Your task to perform on an android device: change the clock display to digital Image 0: 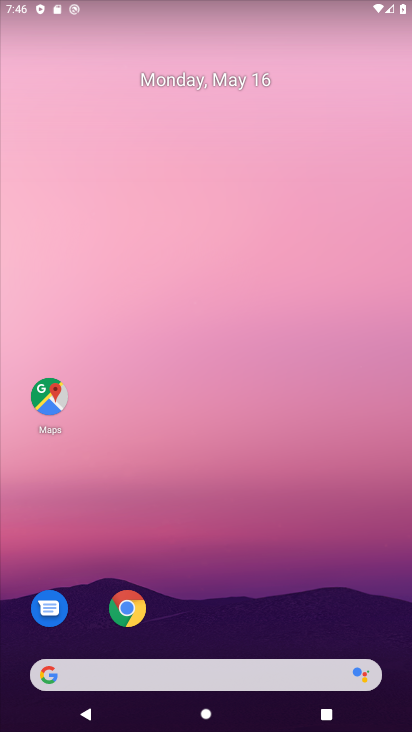
Step 0: drag from (248, 596) to (182, 90)
Your task to perform on an android device: change the clock display to digital Image 1: 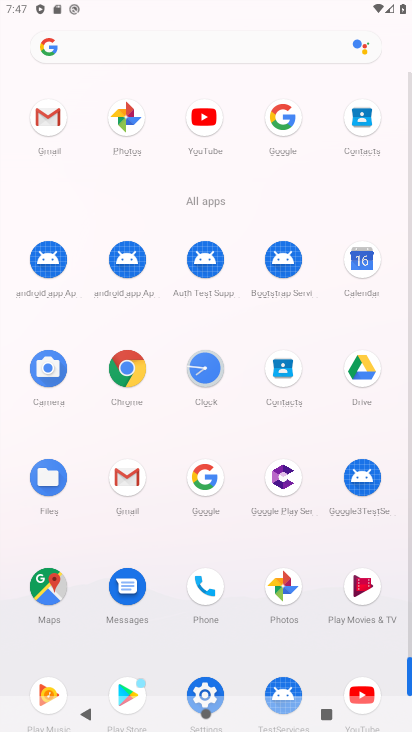
Step 1: click (203, 369)
Your task to perform on an android device: change the clock display to digital Image 2: 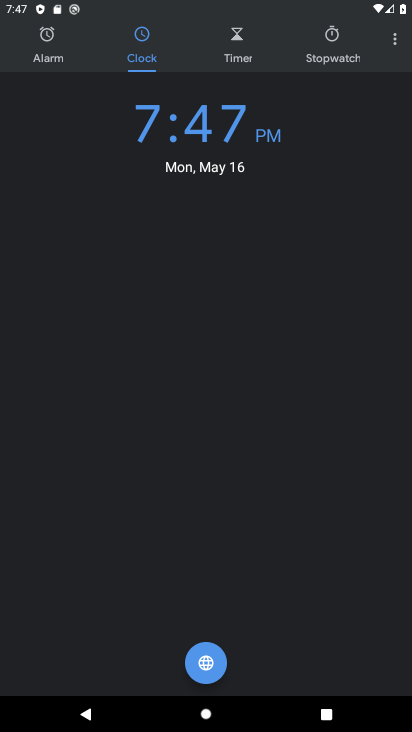
Step 2: click (398, 41)
Your task to perform on an android device: change the clock display to digital Image 3: 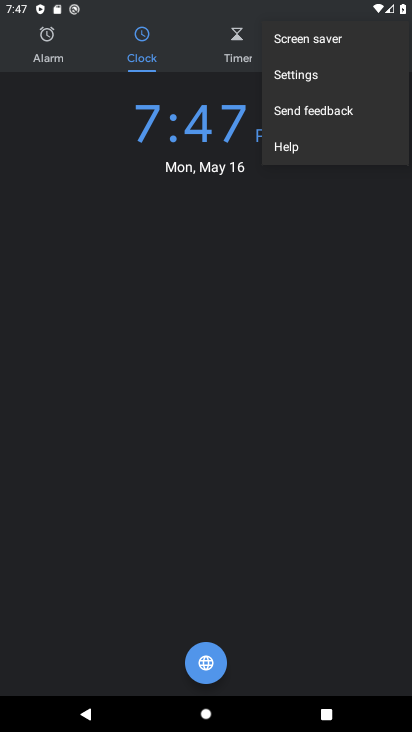
Step 3: click (312, 75)
Your task to perform on an android device: change the clock display to digital Image 4: 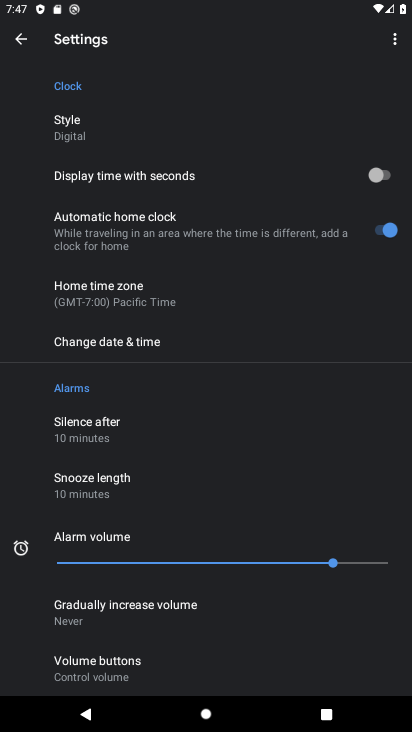
Step 4: click (85, 130)
Your task to perform on an android device: change the clock display to digital Image 5: 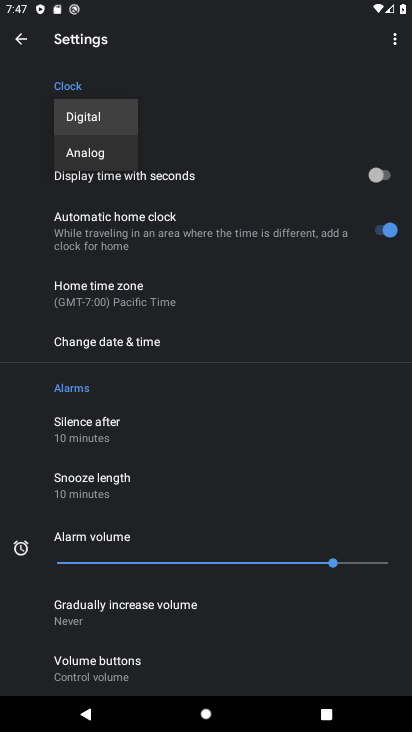
Step 5: click (106, 117)
Your task to perform on an android device: change the clock display to digital Image 6: 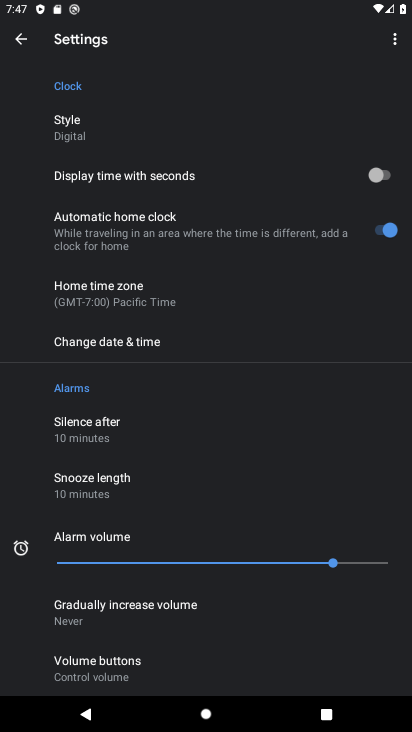
Step 6: task complete